Your task to perform on an android device: Go to Google maps Image 0: 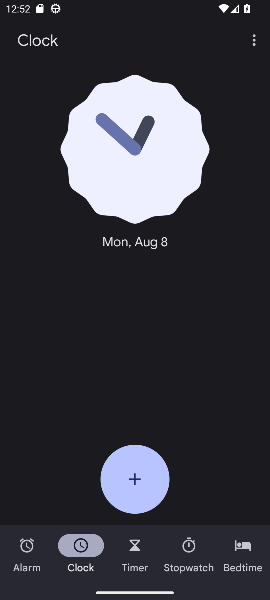
Step 0: press home button
Your task to perform on an android device: Go to Google maps Image 1: 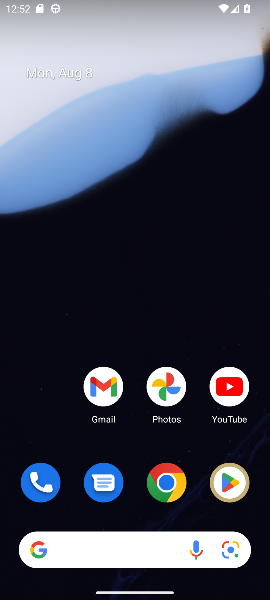
Step 1: drag from (96, 538) to (92, 387)
Your task to perform on an android device: Go to Google maps Image 2: 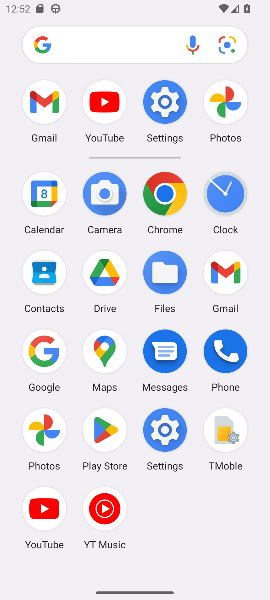
Step 2: click (111, 364)
Your task to perform on an android device: Go to Google maps Image 3: 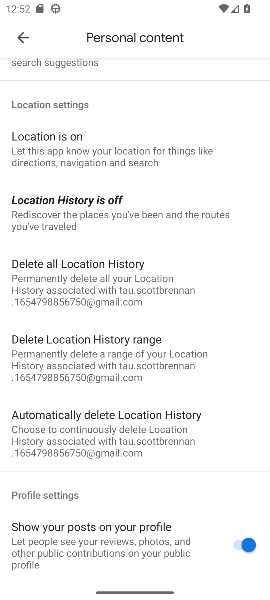
Step 3: task complete